Your task to perform on an android device: Go to CNN.com Image 0: 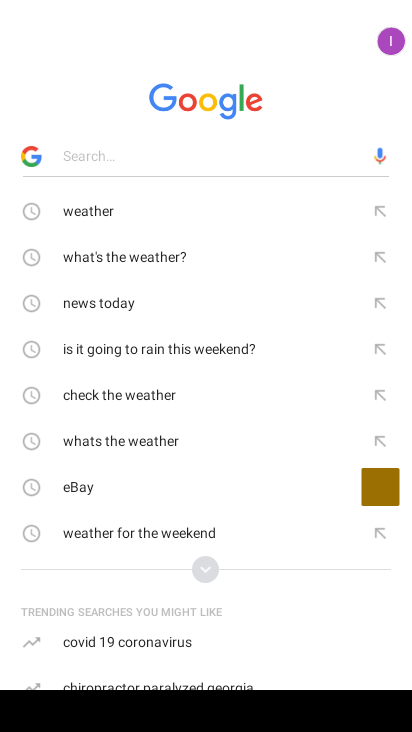
Step 0: press home button
Your task to perform on an android device: Go to CNN.com Image 1: 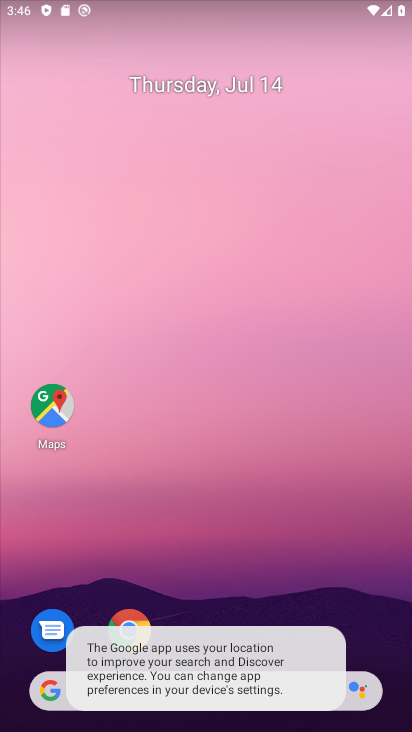
Step 1: drag from (271, 655) to (280, 68)
Your task to perform on an android device: Go to CNN.com Image 2: 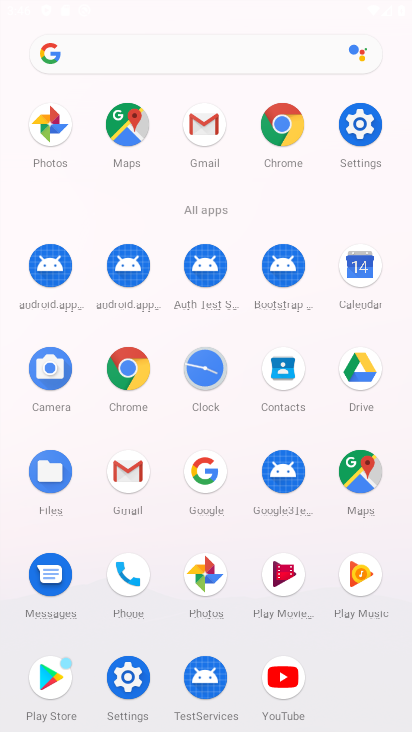
Step 2: click (128, 368)
Your task to perform on an android device: Go to CNN.com Image 3: 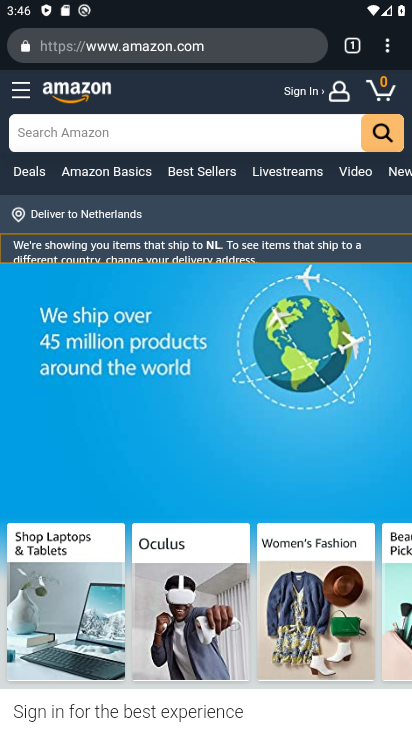
Step 3: click (191, 52)
Your task to perform on an android device: Go to CNN.com Image 4: 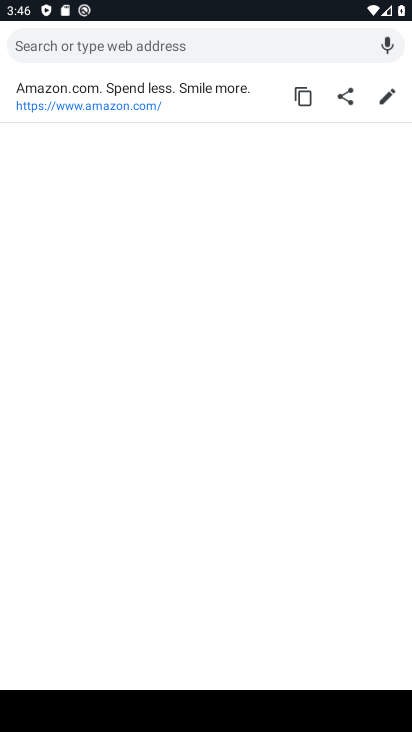
Step 4: type "cnn.com"
Your task to perform on an android device: Go to CNN.com Image 5: 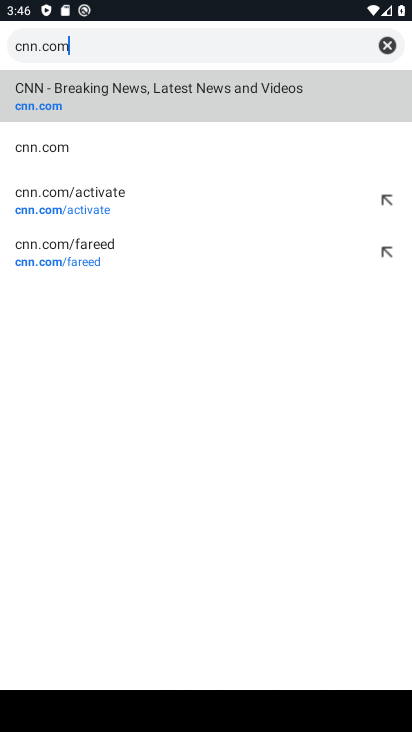
Step 5: click (266, 98)
Your task to perform on an android device: Go to CNN.com Image 6: 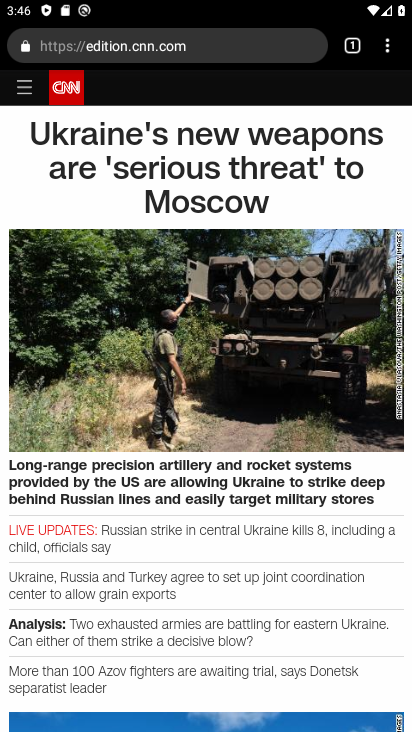
Step 6: task complete